Your task to perform on an android device: see tabs open on other devices in the chrome app Image 0: 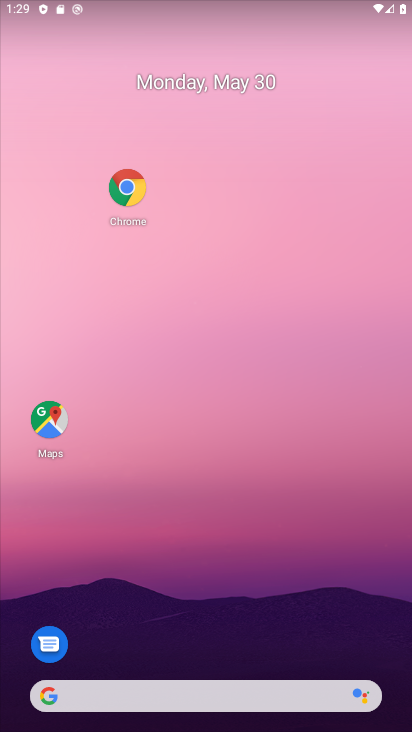
Step 0: drag from (218, 654) to (248, 133)
Your task to perform on an android device: see tabs open on other devices in the chrome app Image 1: 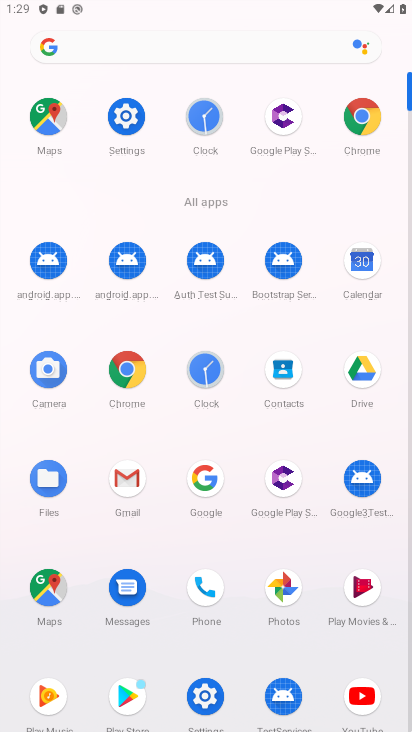
Step 1: click (359, 133)
Your task to perform on an android device: see tabs open on other devices in the chrome app Image 2: 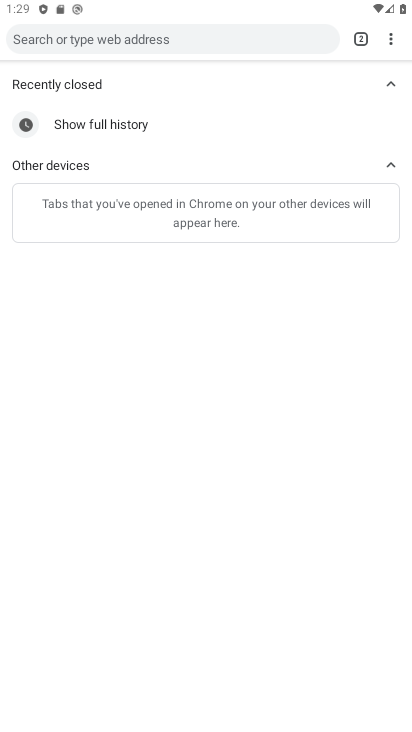
Step 2: click (388, 36)
Your task to perform on an android device: see tabs open on other devices in the chrome app Image 3: 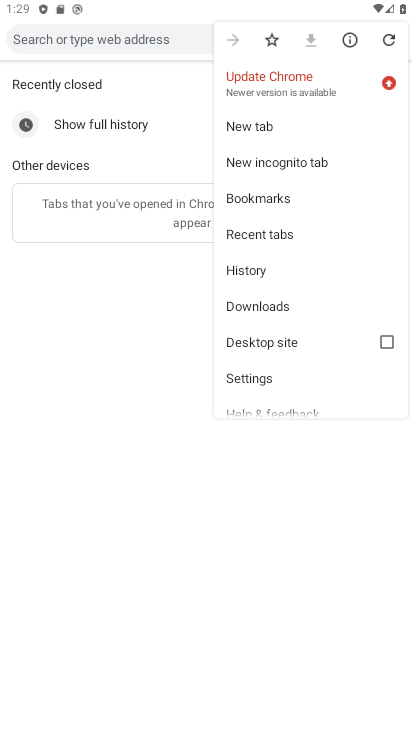
Step 3: click (248, 240)
Your task to perform on an android device: see tabs open on other devices in the chrome app Image 4: 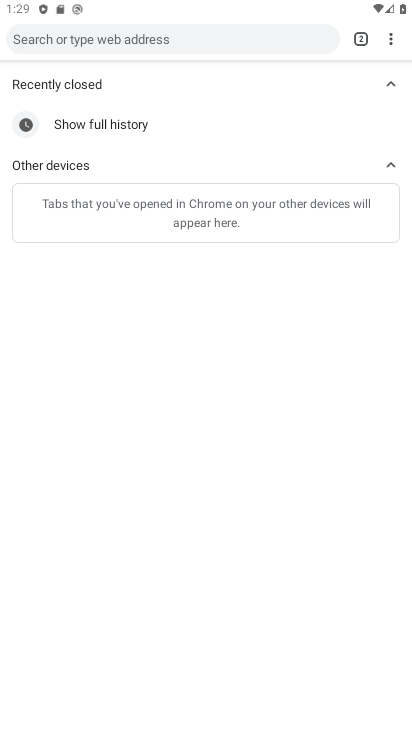
Step 4: task complete